Your task to perform on an android device: Open ESPN.com Image 0: 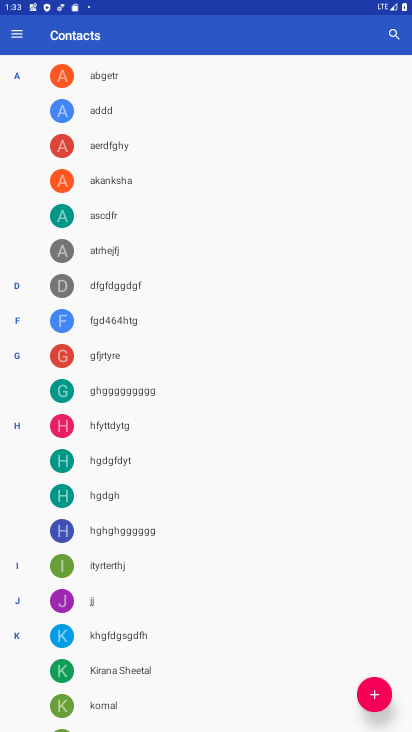
Step 0: press home button
Your task to perform on an android device: Open ESPN.com Image 1: 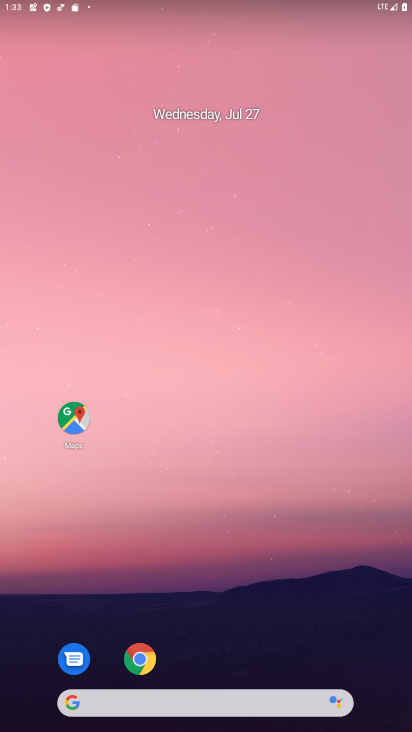
Step 1: drag from (207, 725) to (203, 207)
Your task to perform on an android device: Open ESPN.com Image 2: 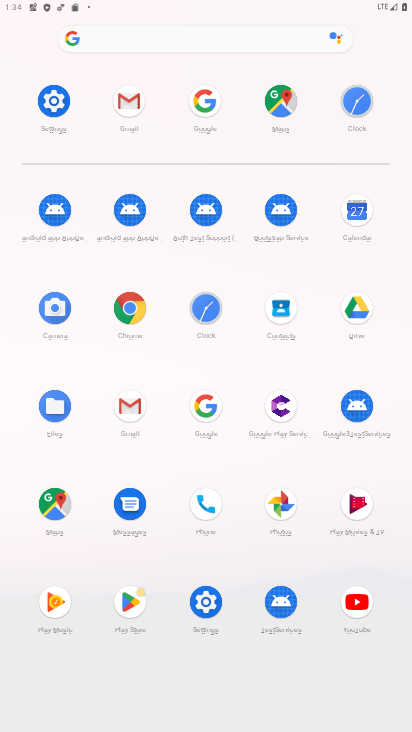
Step 2: click (134, 310)
Your task to perform on an android device: Open ESPN.com Image 3: 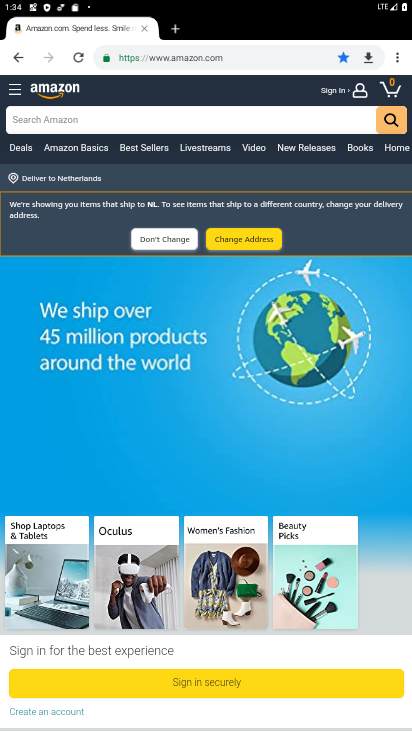
Step 3: click (397, 61)
Your task to perform on an android device: Open ESPN.com Image 4: 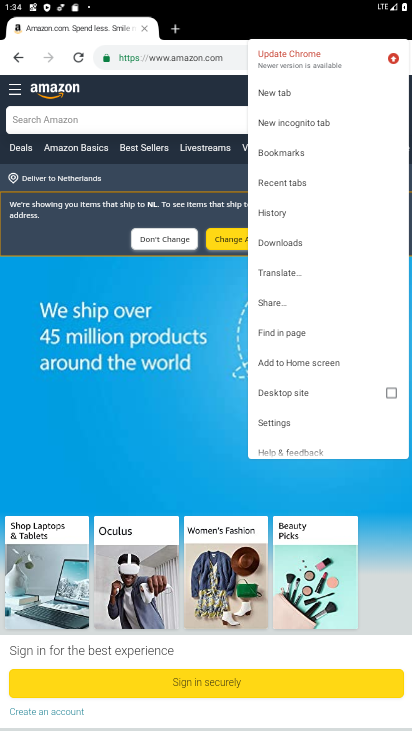
Step 4: click (283, 86)
Your task to perform on an android device: Open ESPN.com Image 5: 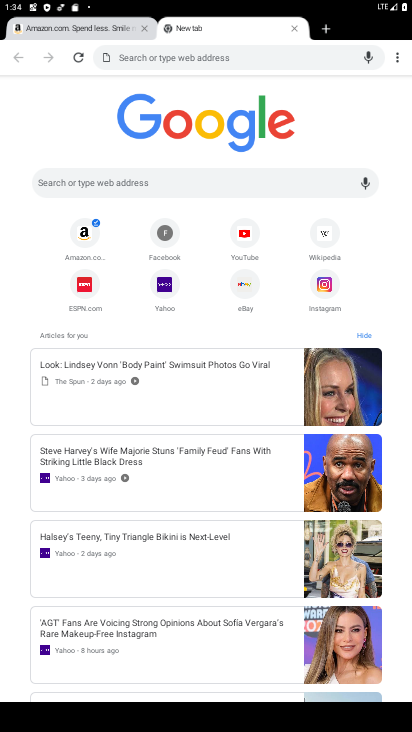
Step 5: click (83, 289)
Your task to perform on an android device: Open ESPN.com Image 6: 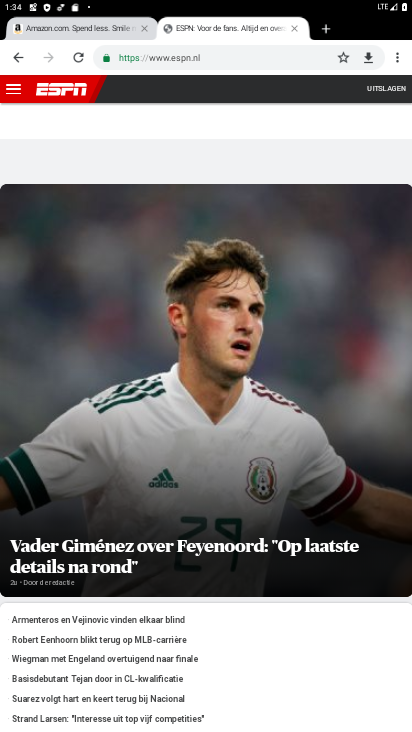
Step 6: task complete